Your task to perform on an android device: Go to eBay Image 0: 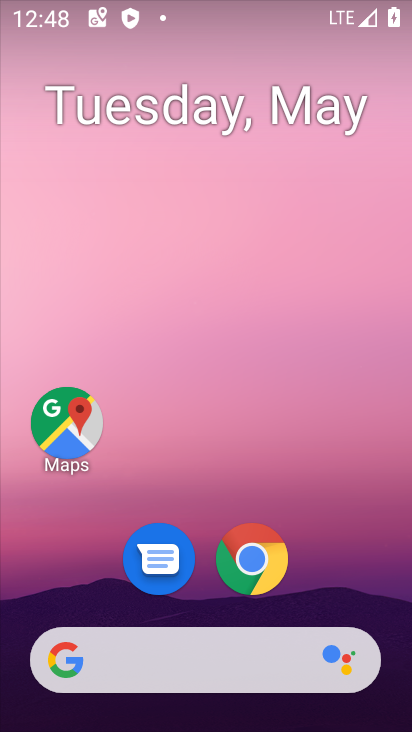
Step 0: click (259, 561)
Your task to perform on an android device: Go to eBay Image 1: 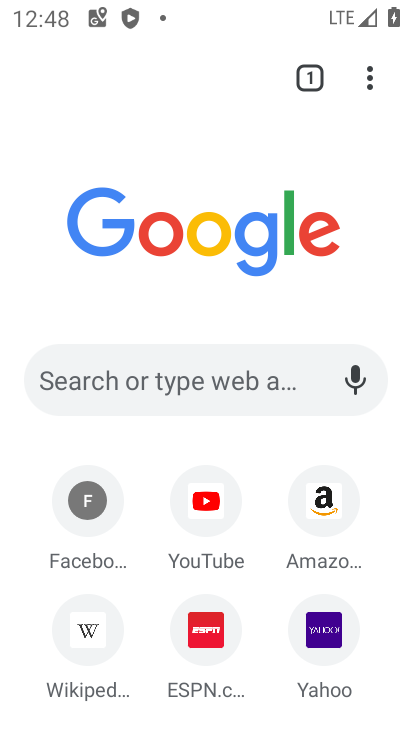
Step 1: click (192, 374)
Your task to perform on an android device: Go to eBay Image 2: 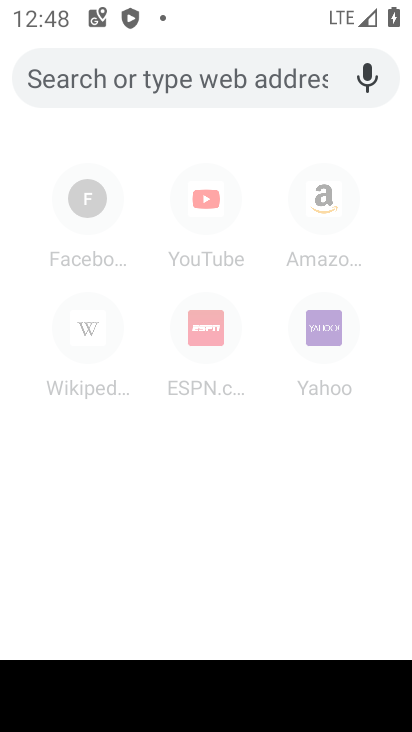
Step 2: type "eBay"
Your task to perform on an android device: Go to eBay Image 3: 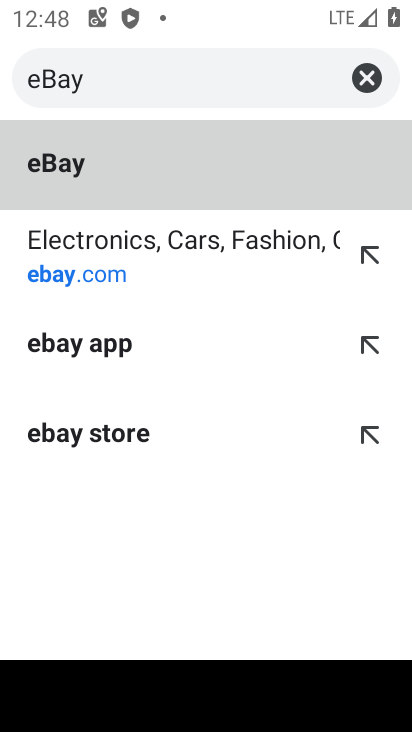
Step 3: click (121, 254)
Your task to perform on an android device: Go to eBay Image 4: 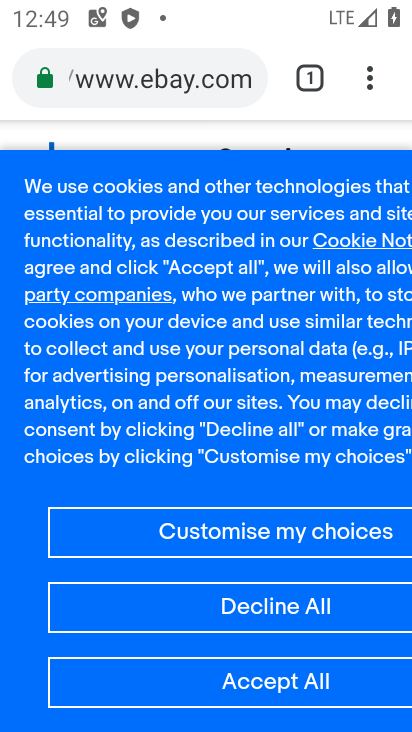
Step 4: task complete